Your task to perform on an android device: turn off translation in the chrome app Image 0: 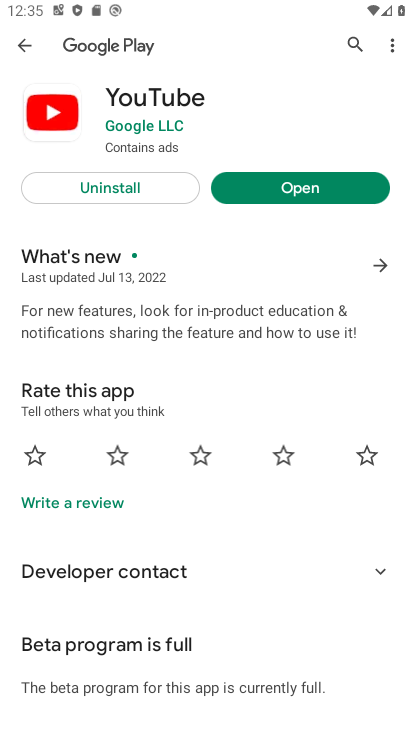
Step 0: press home button
Your task to perform on an android device: turn off translation in the chrome app Image 1: 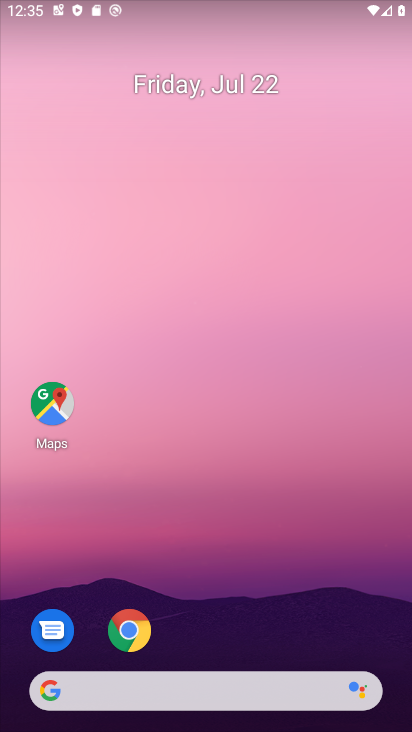
Step 1: click (213, 170)
Your task to perform on an android device: turn off translation in the chrome app Image 2: 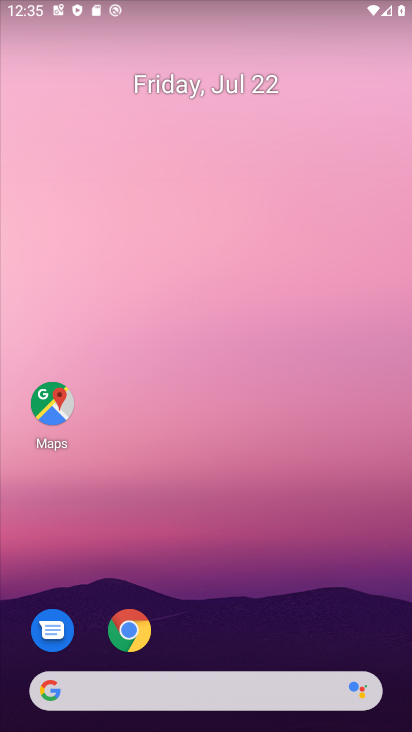
Step 2: click (129, 635)
Your task to perform on an android device: turn off translation in the chrome app Image 3: 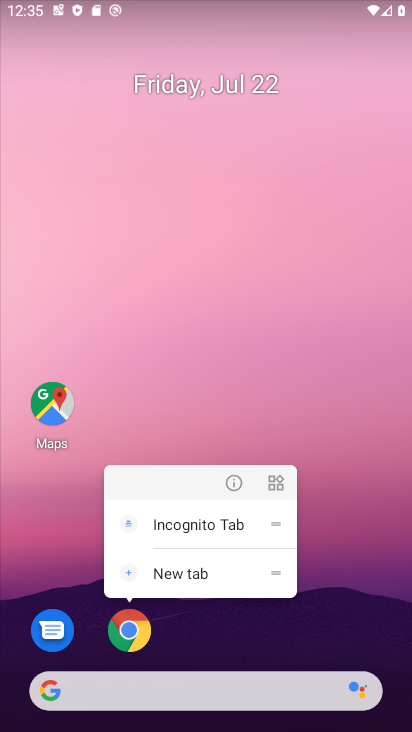
Step 3: click (108, 629)
Your task to perform on an android device: turn off translation in the chrome app Image 4: 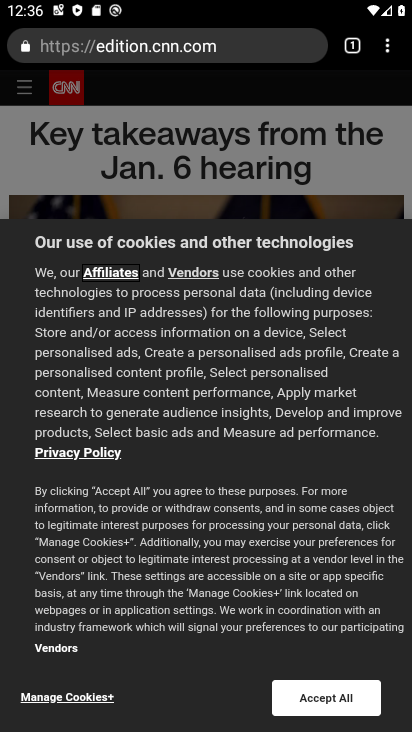
Step 4: drag from (385, 53) to (245, 503)
Your task to perform on an android device: turn off translation in the chrome app Image 5: 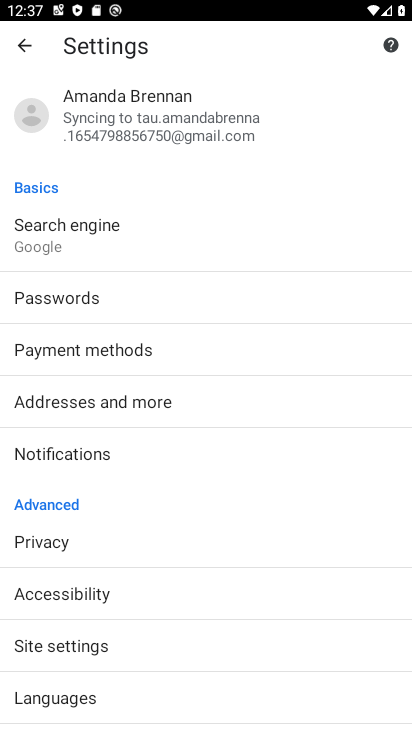
Step 5: drag from (107, 652) to (112, 234)
Your task to perform on an android device: turn off translation in the chrome app Image 6: 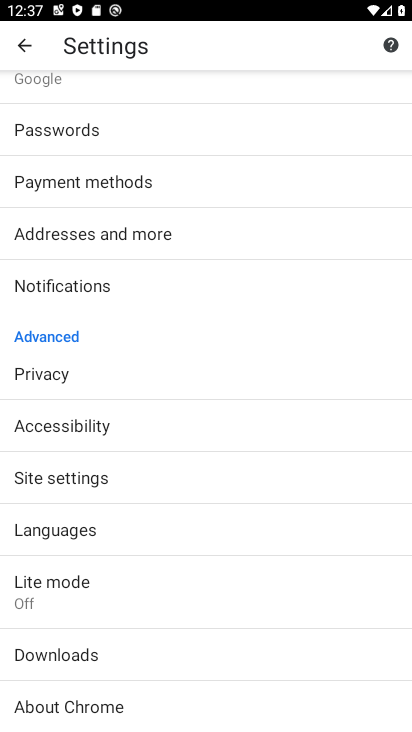
Step 6: click (86, 532)
Your task to perform on an android device: turn off translation in the chrome app Image 7: 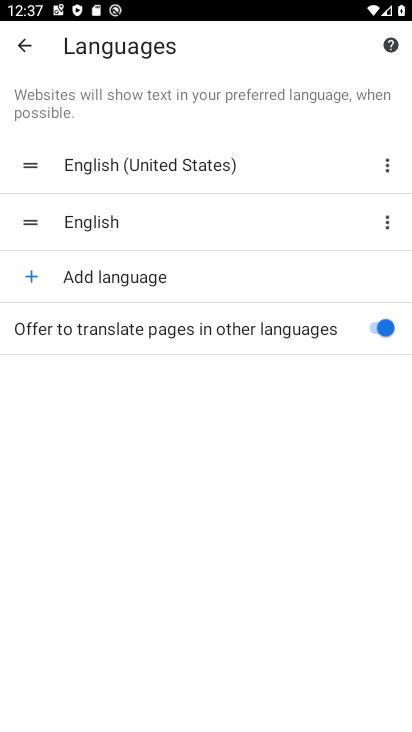
Step 7: click (291, 325)
Your task to perform on an android device: turn off translation in the chrome app Image 8: 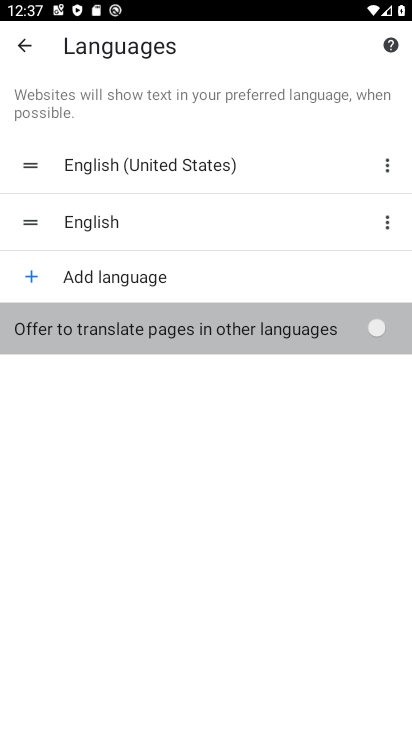
Step 8: task complete